Your task to perform on an android device: Open Maps and search for coffee Image 0: 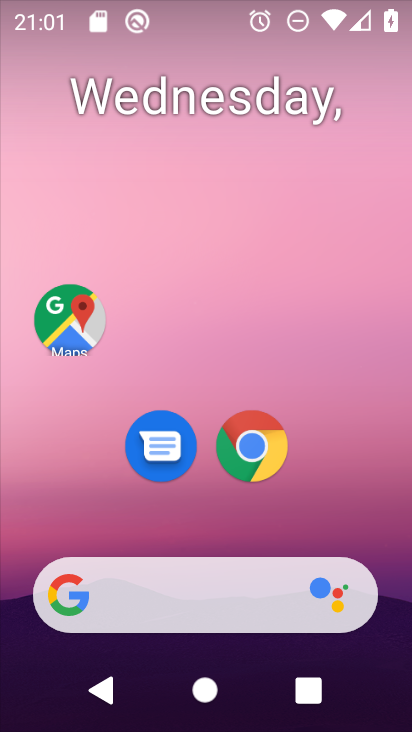
Step 0: click (74, 326)
Your task to perform on an android device: Open Maps and search for coffee Image 1: 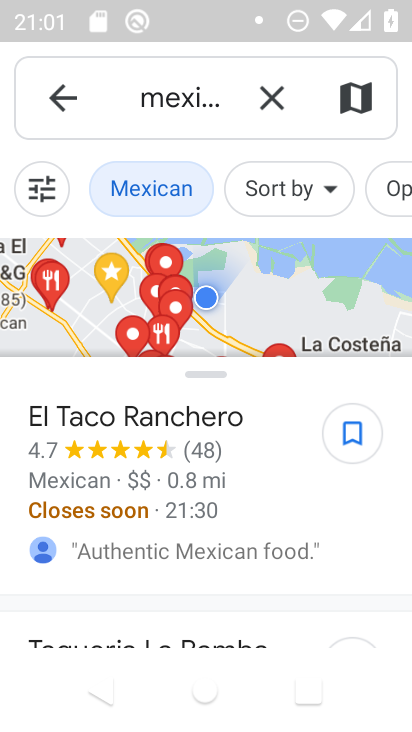
Step 1: click (264, 96)
Your task to perform on an android device: Open Maps and search for coffee Image 2: 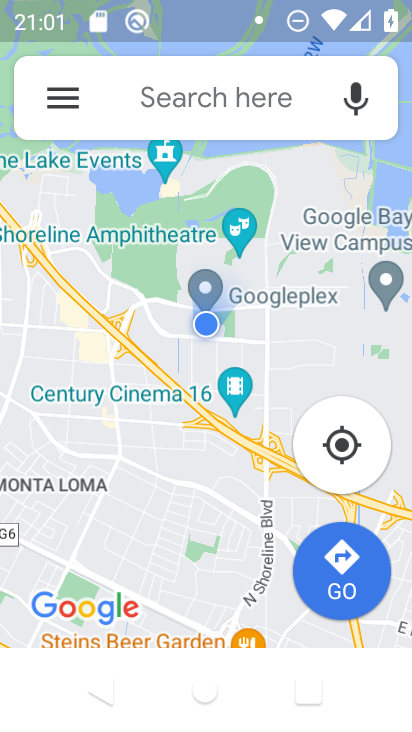
Step 2: click (212, 101)
Your task to perform on an android device: Open Maps and search for coffee Image 3: 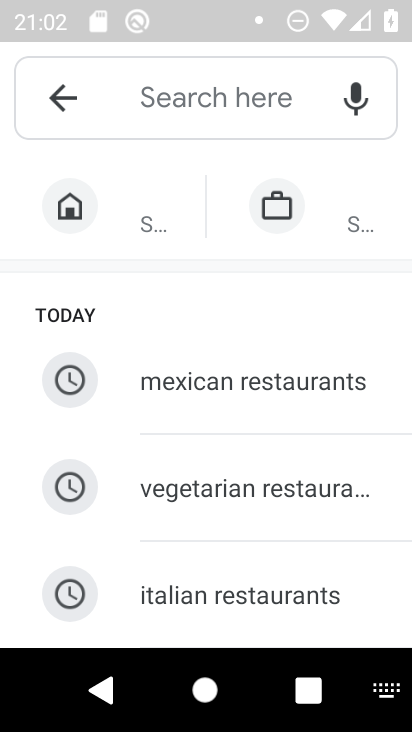
Step 3: type "coffee"
Your task to perform on an android device: Open Maps and search for coffee Image 4: 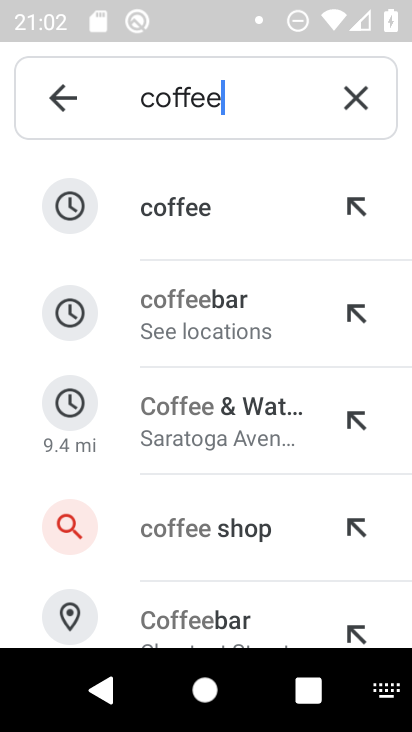
Step 4: click (197, 224)
Your task to perform on an android device: Open Maps and search for coffee Image 5: 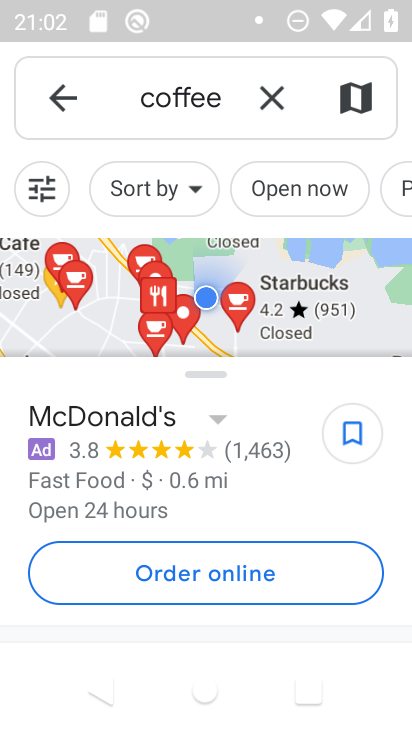
Step 5: task complete